Your task to perform on an android device: Add macbook pro 13 inch to the cart on bestbuy.com, then select checkout. Image 0: 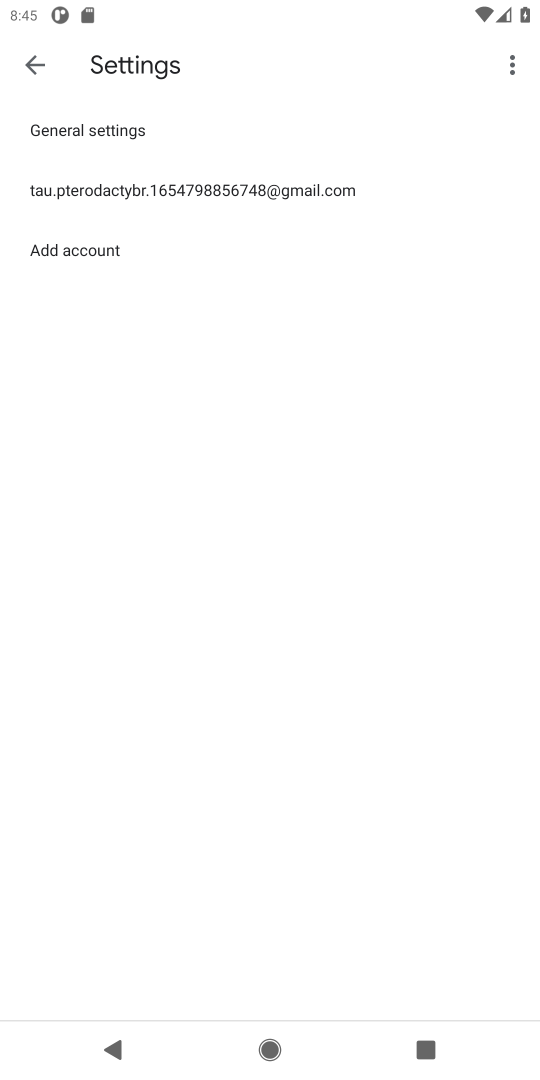
Step 0: press home button
Your task to perform on an android device: Add macbook pro 13 inch to the cart on bestbuy.com, then select checkout. Image 1: 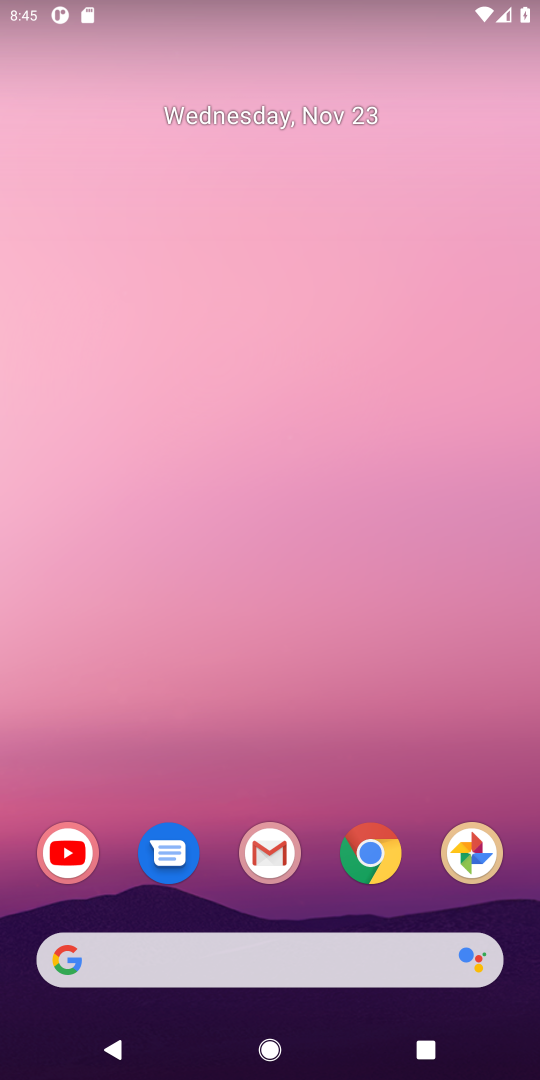
Step 1: click (371, 864)
Your task to perform on an android device: Add macbook pro 13 inch to the cart on bestbuy.com, then select checkout. Image 2: 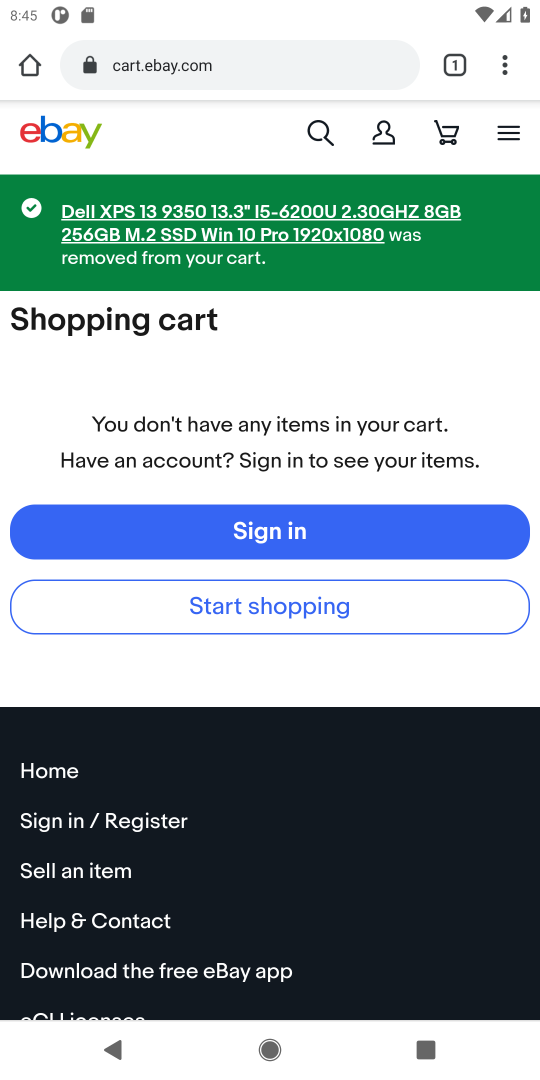
Step 2: click (203, 68)
Your task to perform on an android device: Add macbook pro 13 inch to the cart on bestbuy.com, then select checkout. Image 3: 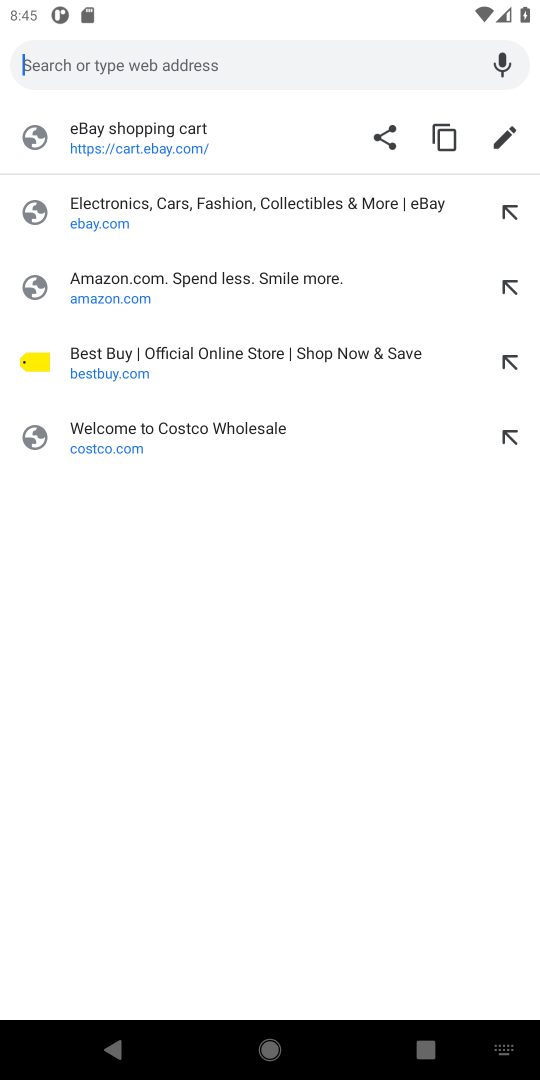
Step 3: click (91, 363)
Your task to perform on an android device: Add macbook pro 13 inch to the cart on bestbuy.com, then select checkout. Image 4: 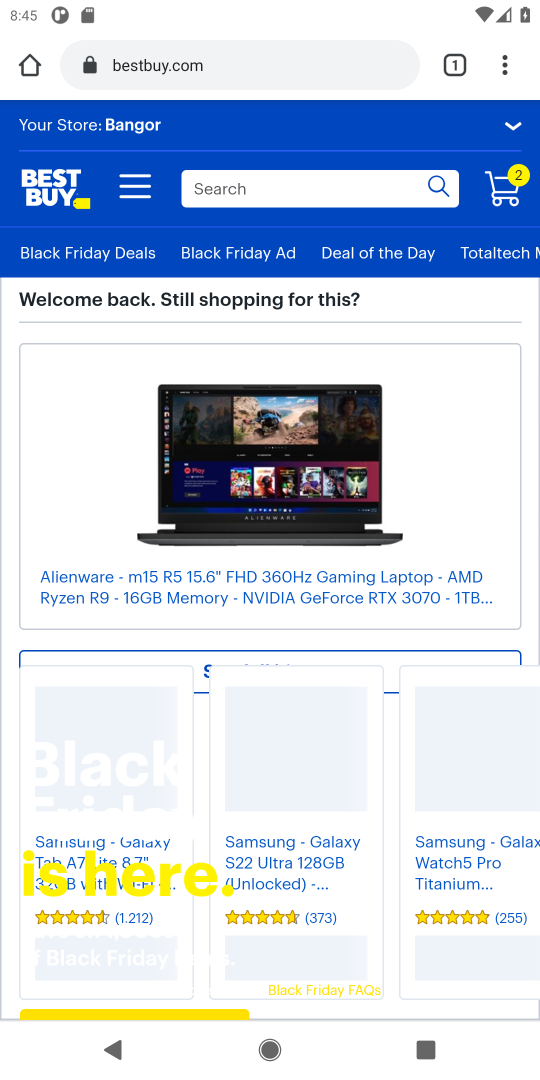
Step 4: click (208, 184)
Your task to perform on an android device: Add macbook pro 13 inch to the cart on bestbuy.com, then select checkout. Image 5: 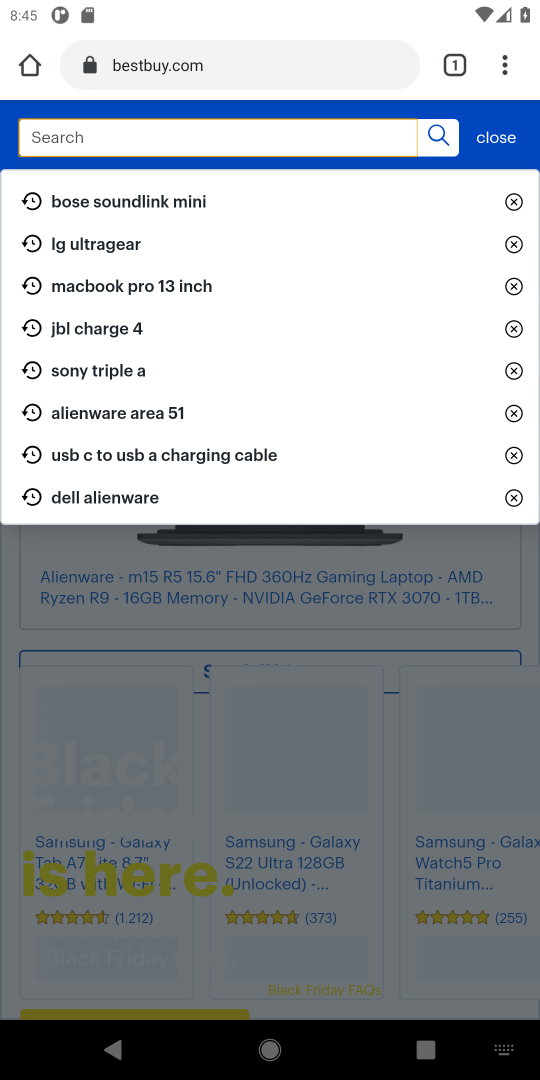
Step 5: type "macbook pro 13 inch"
Your task to perform on an android device: Add macbook pro 13 inch to the cart on bestbuy.com, then select checkout. Image 6: 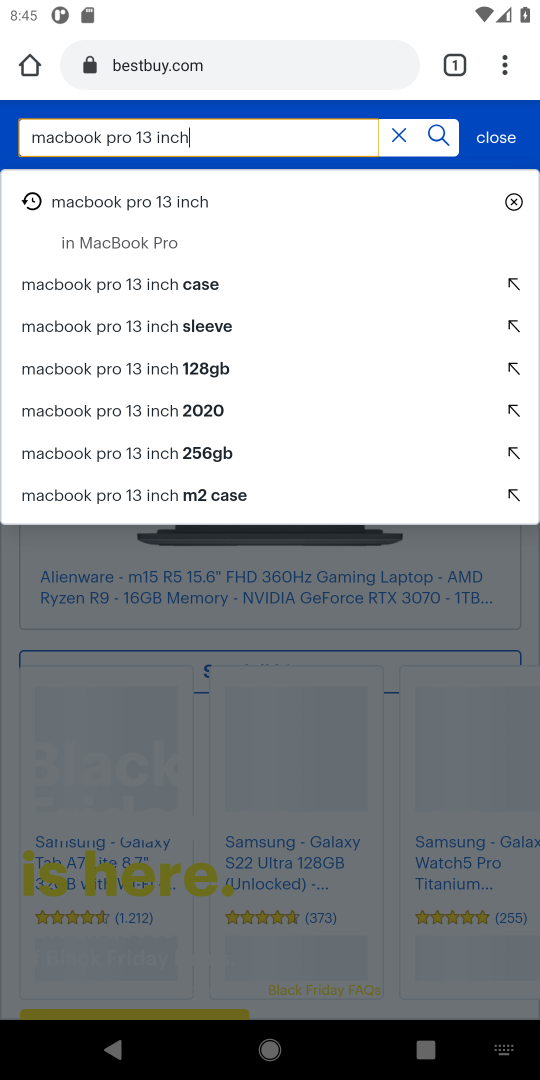
Step 6: click (112, 216)
Your task to perform on an android device: Add macbook pro 13 inch to the cart on bestbuy.com, then select checkout. Image 7: 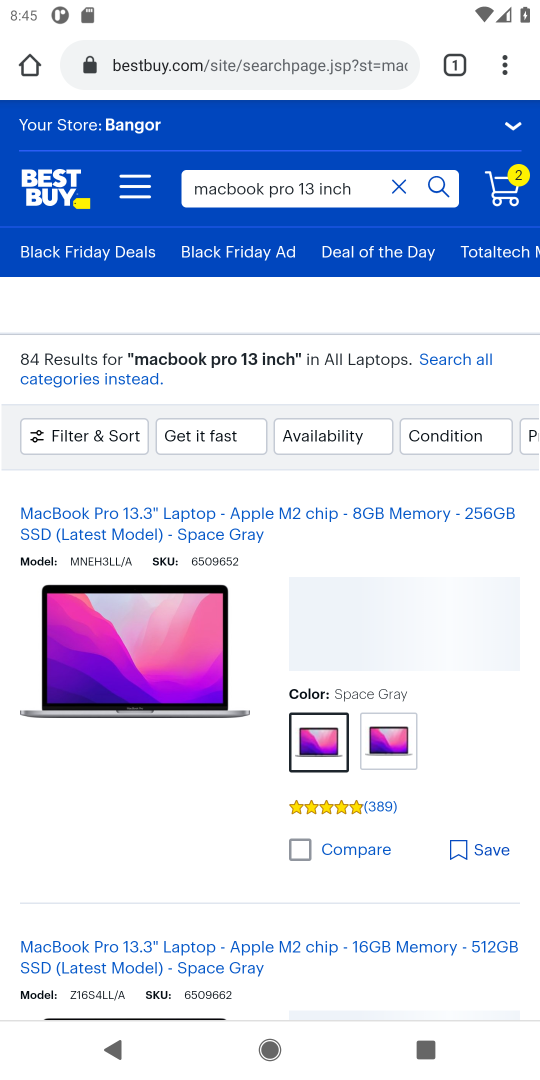
Step 7: drag from (186, 662) to (162, 275)
Your task to perform on an android device: Add macbook pro 13 inch to the cart on bestbuy.com, then select checkout. Image 8: 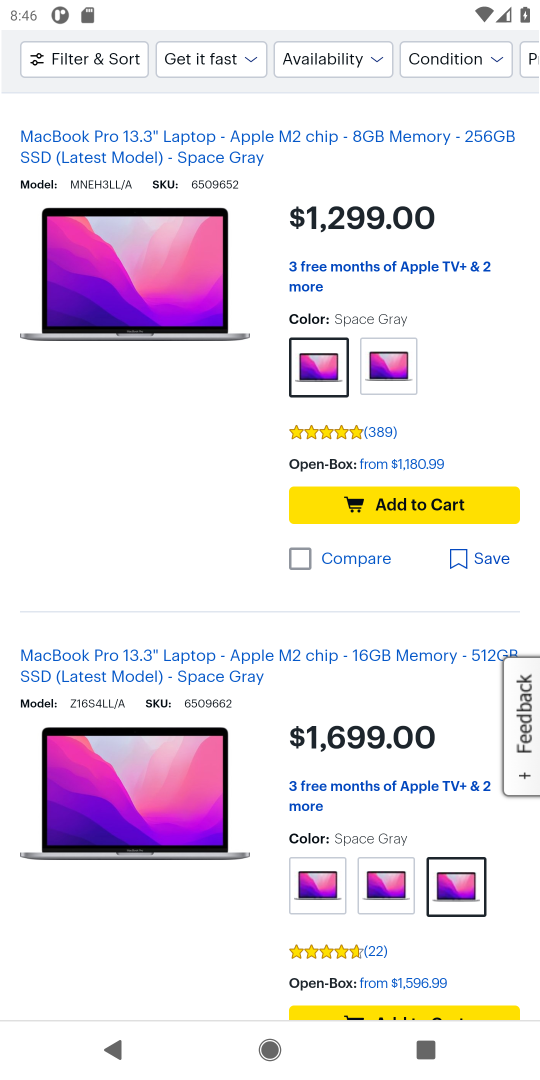
Step 8: drag from (124, 630) to (133, 341)
Your task to perform on an android device: Add macbook pro 13 inch to the cart on bestbuy.com, then select checkout. Image 9: 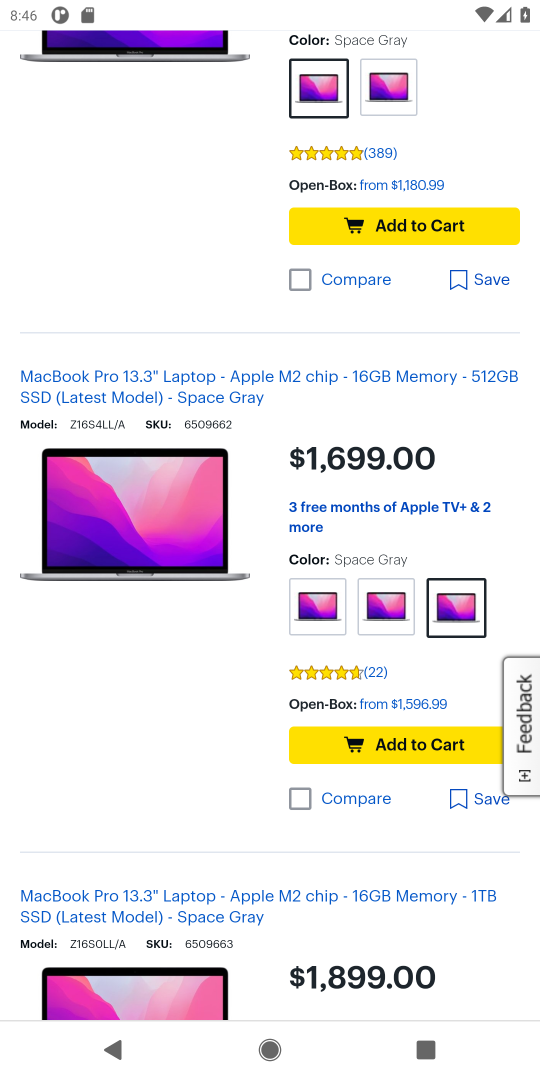
Step 9: drag from (161, 268) to (161, 789)
Your task to perform on an android device: Add macbook pro 13 inch to the cart on bestbuy.com, then select checkout. Image 10: 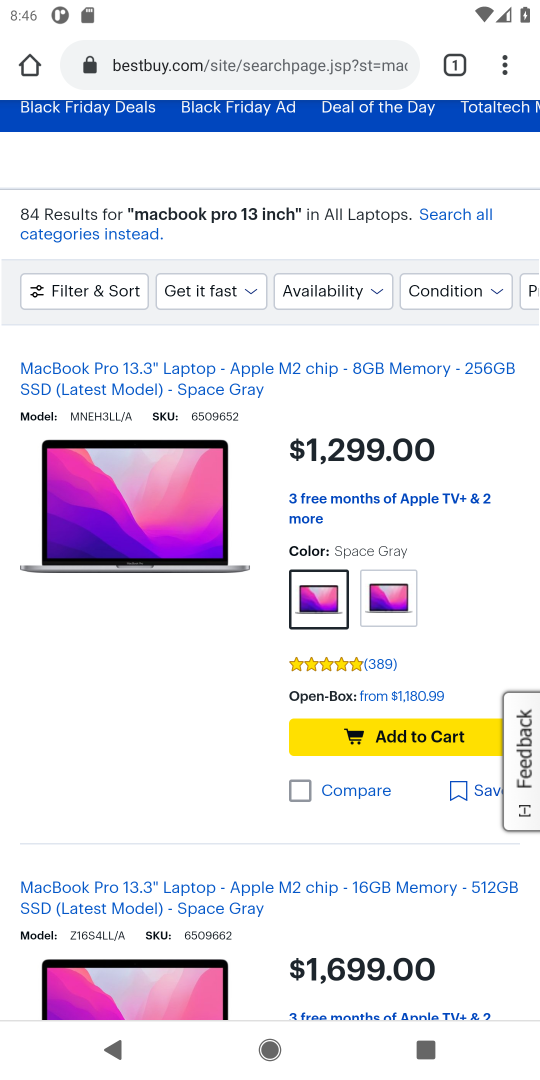
Step 10: click (115, 513)
Your task to perform on an android device: Add macbook pro 13 inch to the cart on bestbuy.com, then select checkout. Image 11: 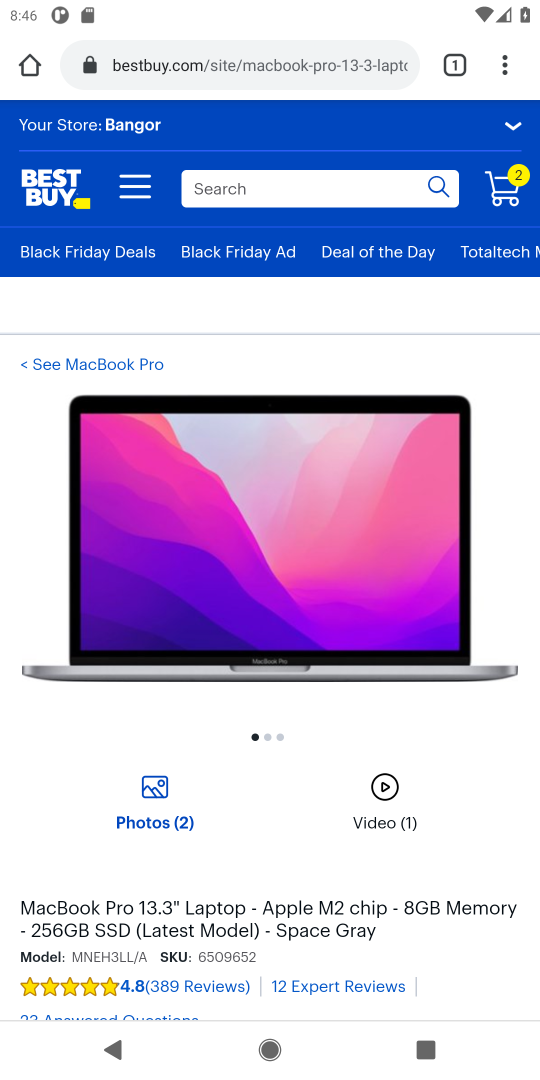
Step 11: drag from (235, 824) to (245, 280)
Your task to perform on an android device: Add macbook pro 13 inch to the cart on bestbuy.com, then select checkout. Image 12: 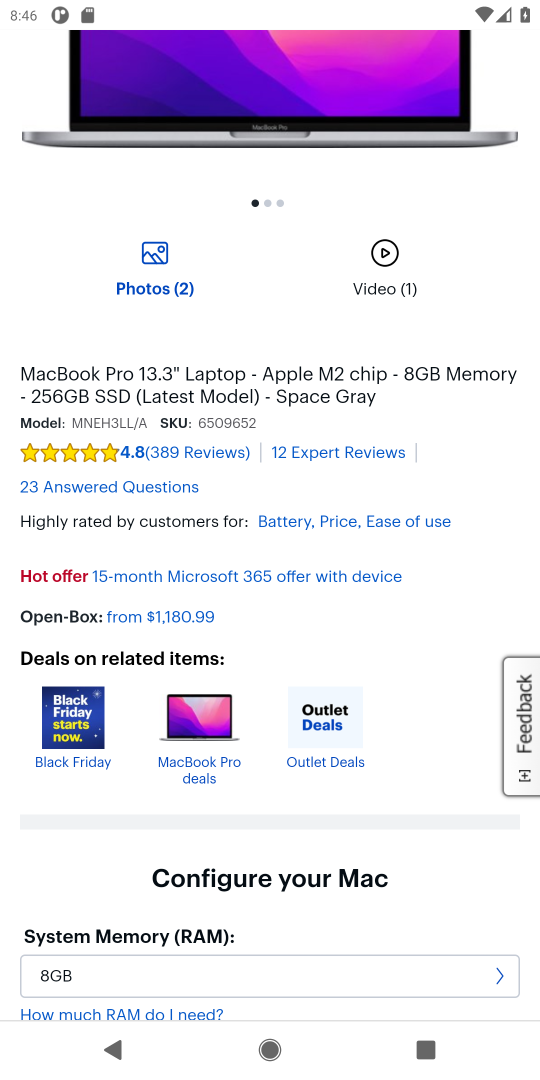
Step 12: drag from (227, 636) to (198, 303)
Your task to perform on an android device: Add macbook pro 13 inch to the cart on bestbuy.com, then select checkout. Image 13: 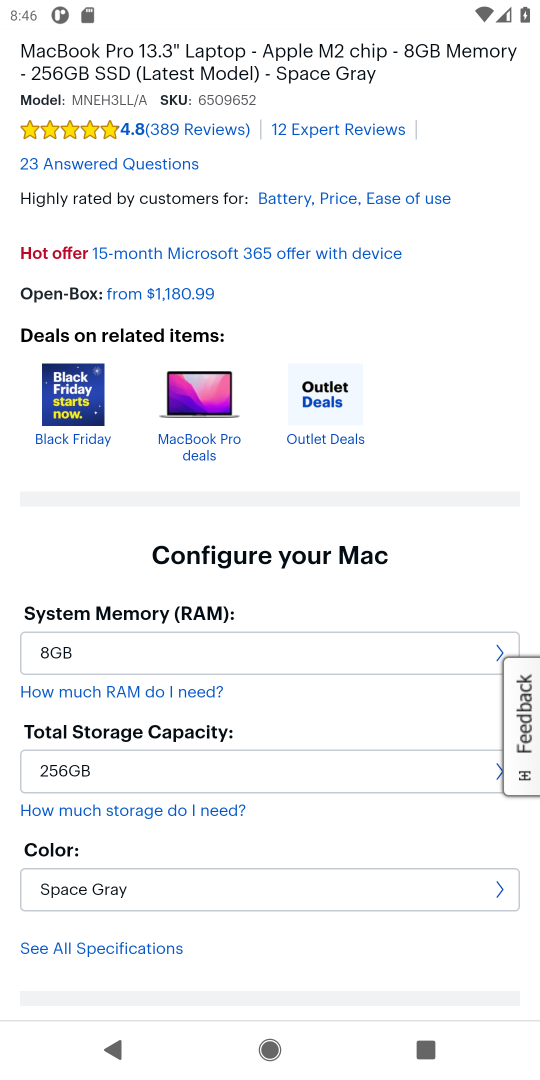
Step 13: drag from (222, 703) to (177, 387)
Your task to perform on an android device: Add macbook pro 13 inch to the cart on bestbuy.com, then select checkout. Image 14: 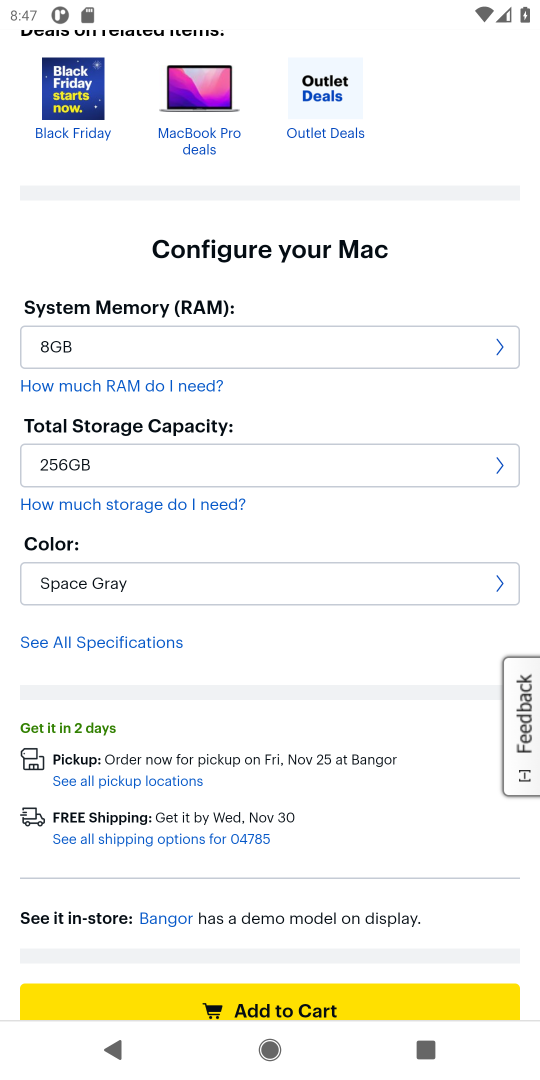
Step 14: drag from (246, 826) to (250, 575)
Your task to perform on an android device: Add macbook pro 13 inch to the cart on bestbuy.com, then select checkout. Image 15: 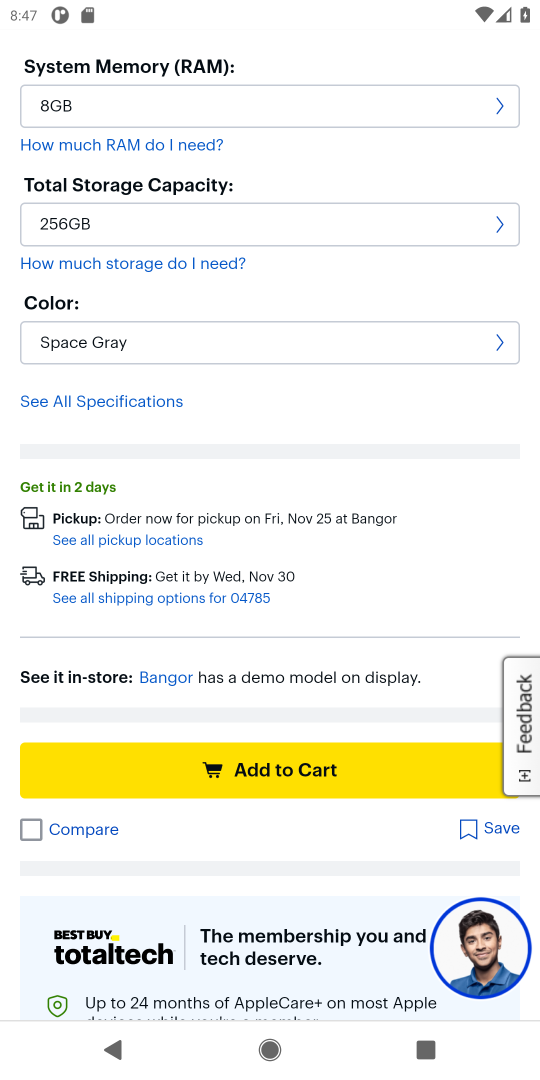
Step 15: click (251, 769)
Your task to perform on an android device: Add macbook pro 13 inch to the cart on bestbuy.com, then select checkout. Image 16: 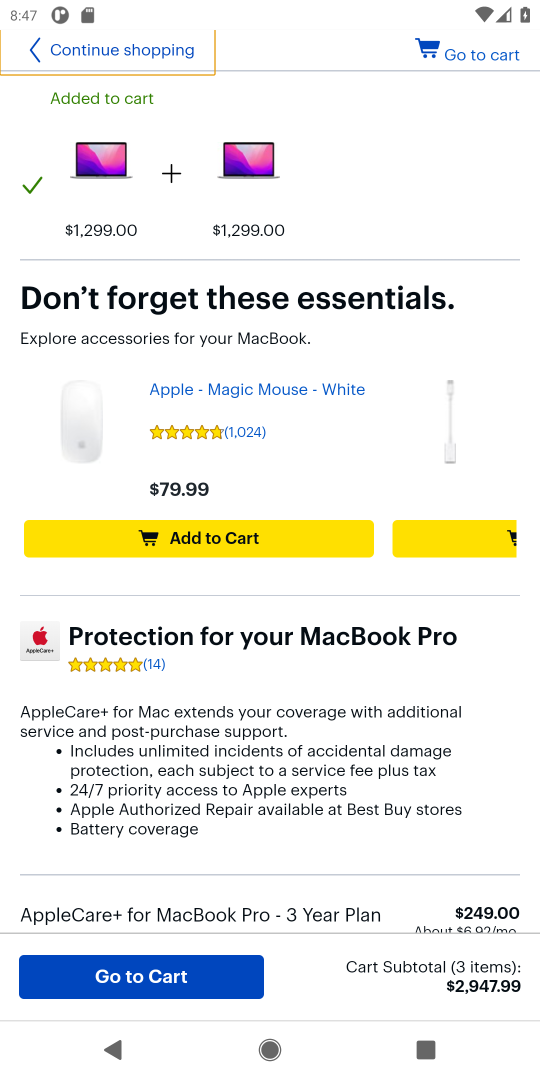
Step 16: click (476, 56)
Your task to perform on an android device: Add macbook pro 13 inch to the cart on bestbuy.com, then select checkout. Image 17: 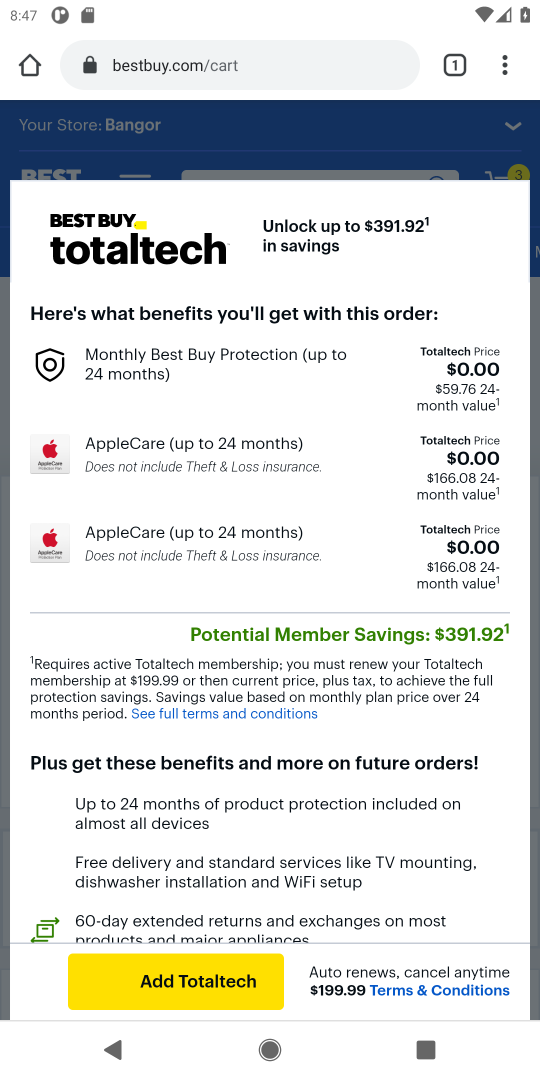
Step 17: click (220, 752)
Your task to perform on an android device: Add macbook pro 13 inch to the cart on bestbuy.com, then select checkout. Image 18: 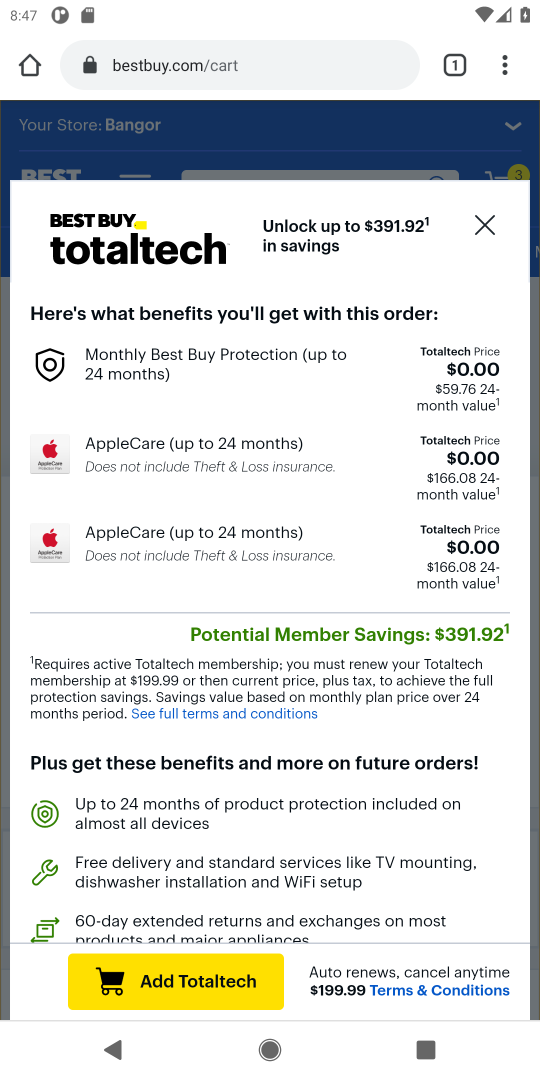
Step 18: click (488, 221)
Your task to perform on an android device: Add macbook pro 13 inch to the cart on bestbuy.com, then select checkout. Image 19: 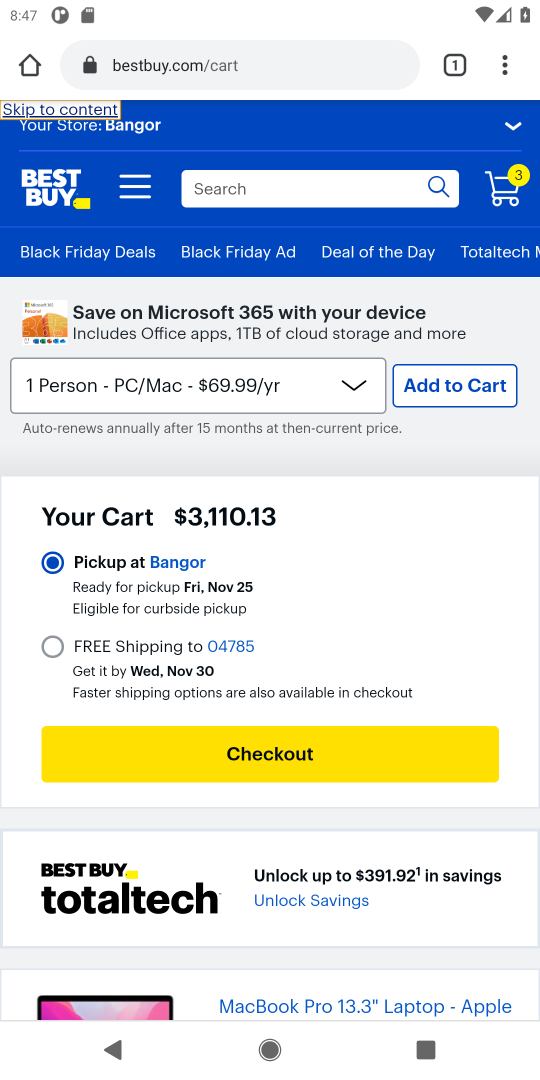
Step 19: click (262, 743)
Your task to perform on an android device: Add macbook pro 13 inch to the cart on bestbuy.com, then select checkout. Image 20: 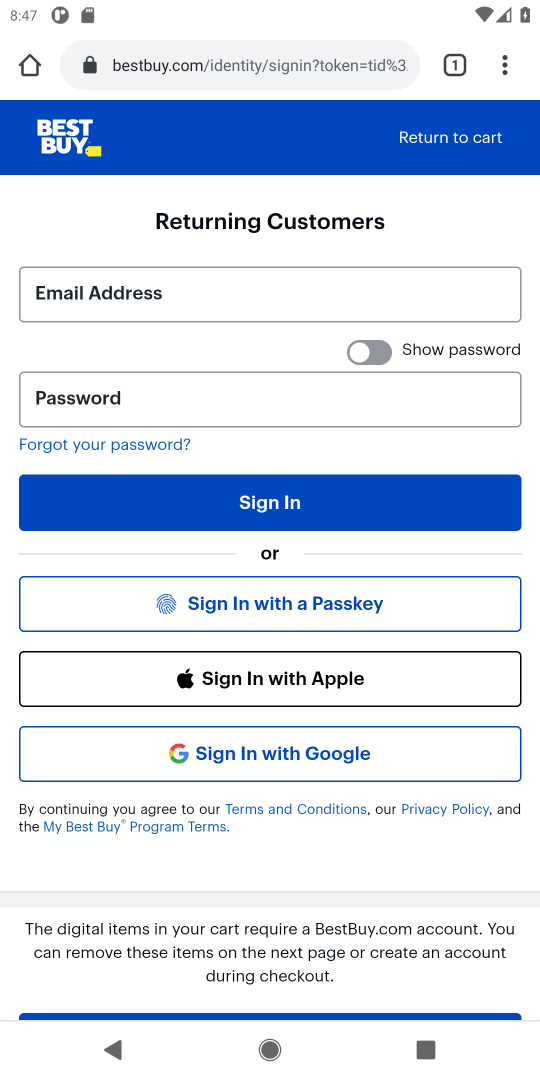
Step 20: task complete